Your task to perform on an android device: Search for sushi restaurants on Maps Image 0: 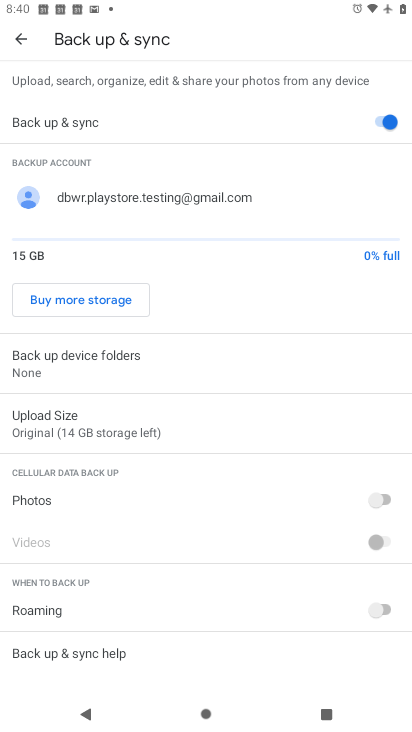
Step 0: press home button
Your task to perform on an android device: Search for sushi restaurants on Maps Image 1: 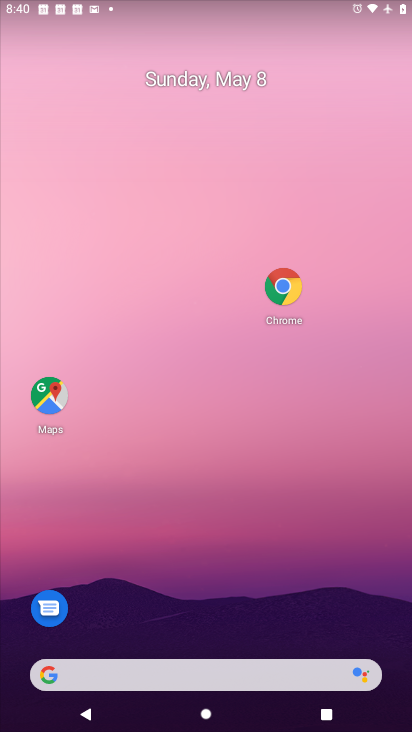
Step 1: drag from (210, 668) to (326, 196)
Your task to perform on an android device: Search for sushi restaurants on Maps Image 2: 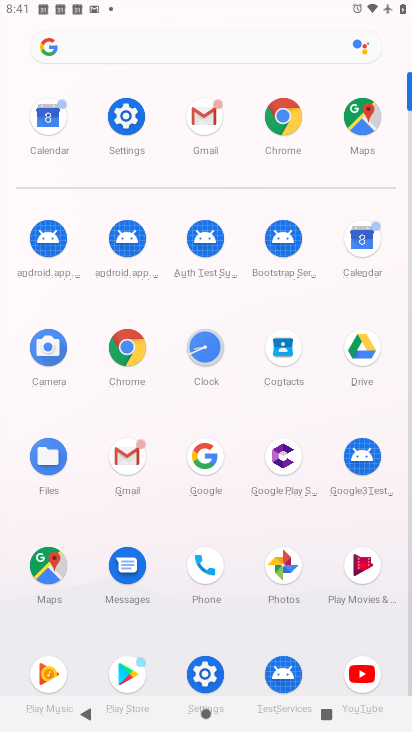
Step 2: click (49, 563)
Your task to perform on an android device: Search for sushi restaurants on Maps Image 3: 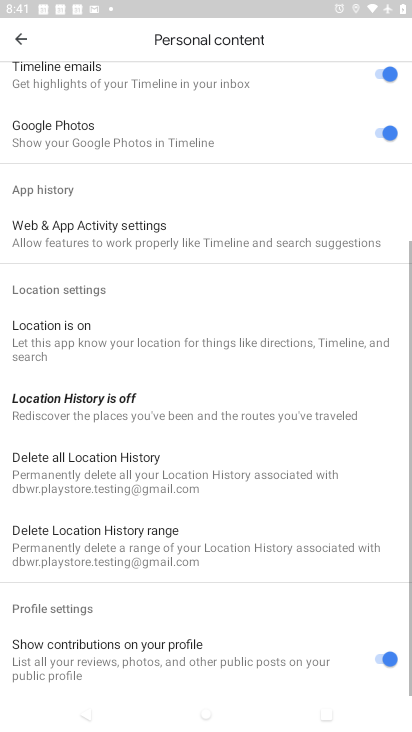
Step 3: click (23, 41)
Your task to perform on an android device: Search for sushi restaurants on Maps Image 4: 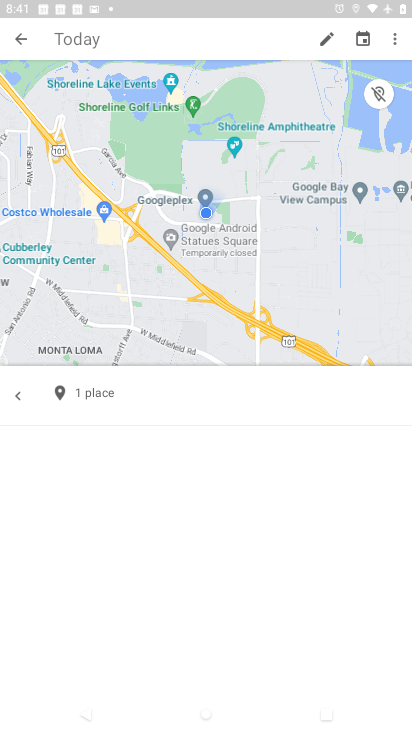
Step 4: click (23, 41)
Your task to perform on an android device: Search for sushi restaurants on Maps Image 5: 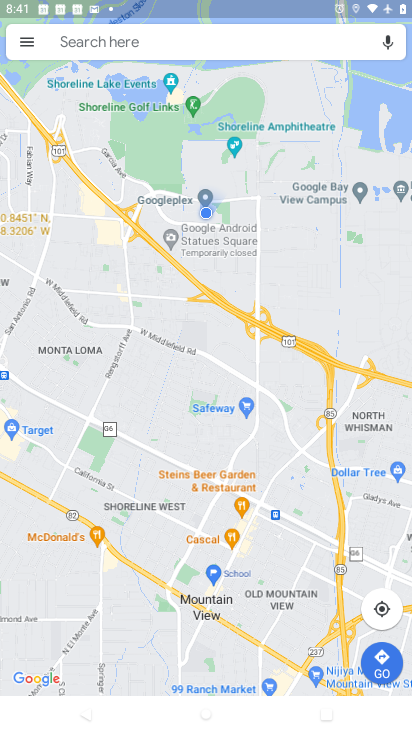
Step 5: click (121, 42)
Your task to perform on an android device: Search for sushi restaurants on Maps Image 6: 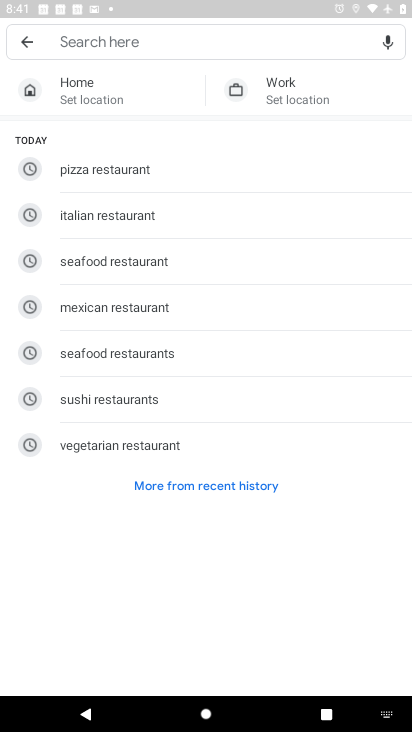
Step 6: click (114, 396)
Your task to perform on an android device: Search for sushi restaurants on Maps Image 7: 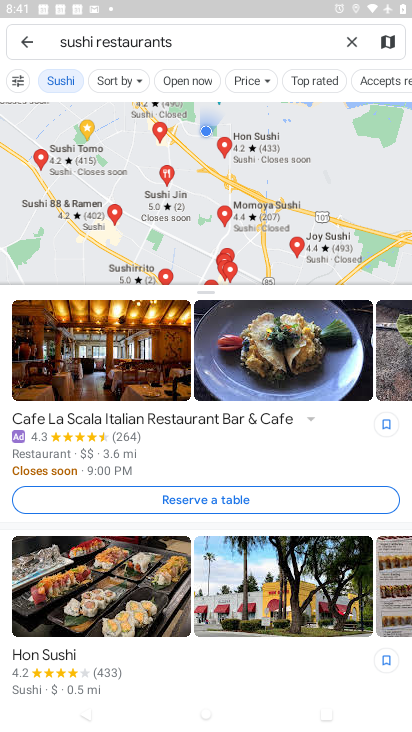
Step 7: task complete